Your task to perform on an android device: Search for pizza restaurants on Maps Image 0: 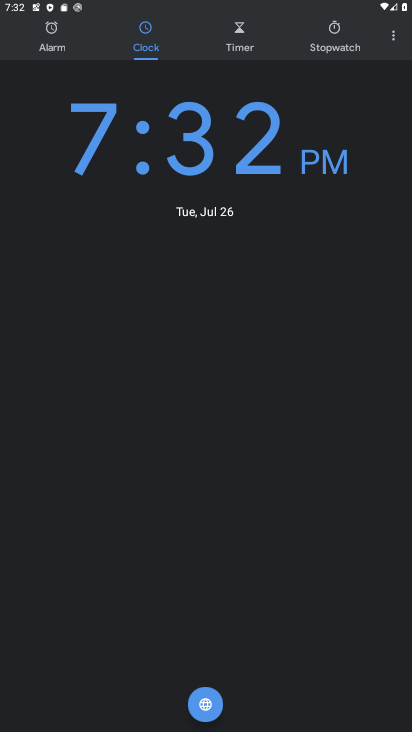
Step 0: press home button
Your task to perform on an android device: Search for pizza restaurants on Maps Image 1: 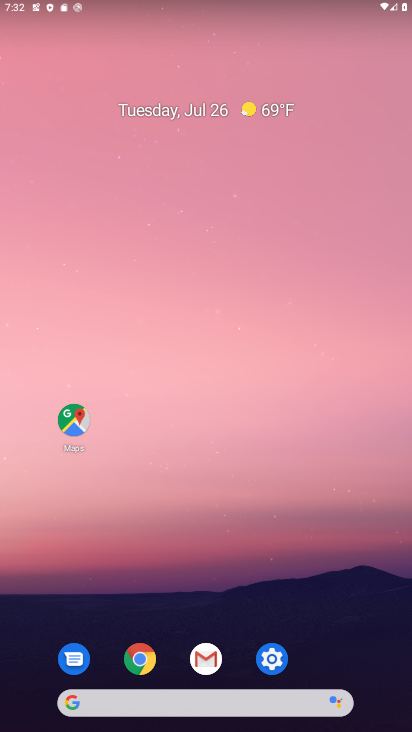
Step 1: click (78, 422)
Your task to perform on an android device: Search for pizza restaurants on Maps Image 2: 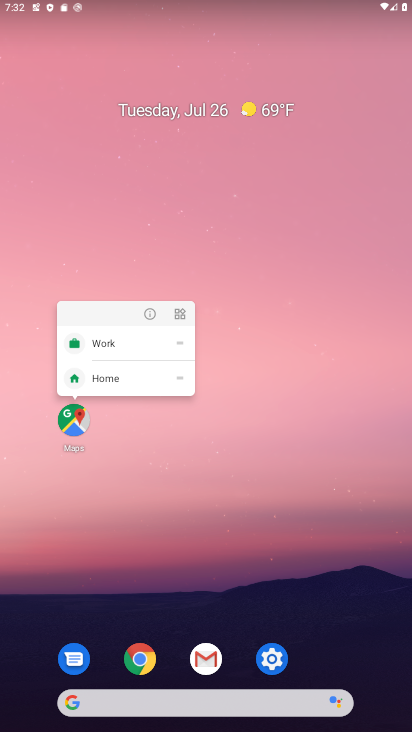
Step 2: click (73, 425)
Your task to perform on an android device: Search for pizza restaurants on Maps Image 3: 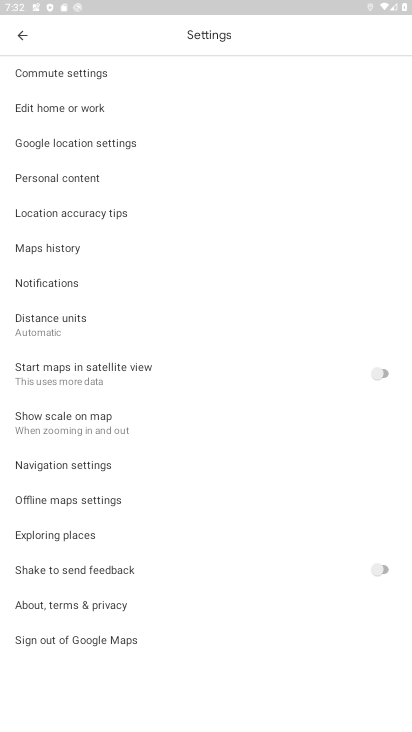
Step 3: click (15, 34)
Your task to perform on an android device: Search for pizza restaurants on Maps Image 4: 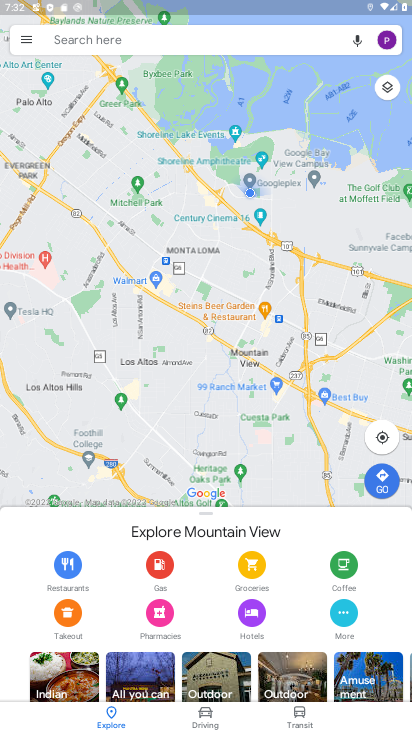
Step 4: click (154, 36)
Your task to perform on an android device: Search for pizza restaurants on Maps Image 5: 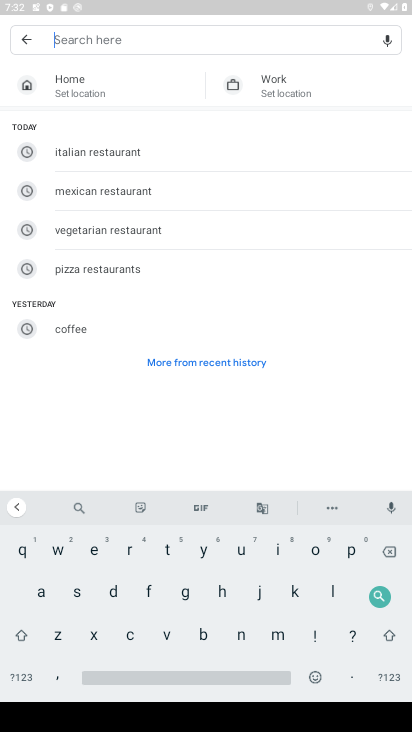
Step 5: click (96, 269)
Your task to perform on an android device: Search for pizza restaurants on Maps Image 6: 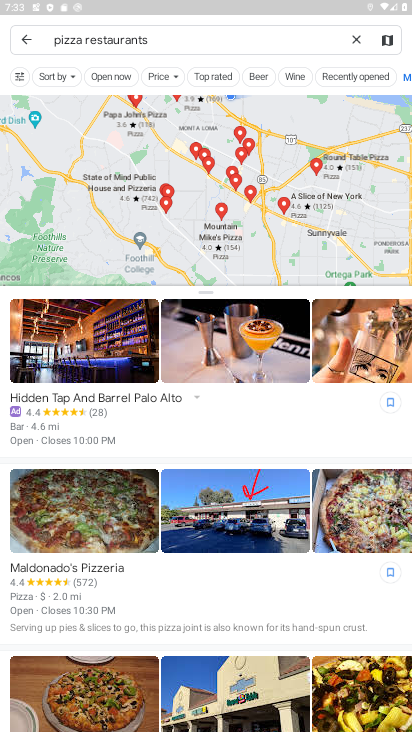
Step 6: task complete